Your task to perform on an android device: see tabs open on other devices in the chrome app Image 0: 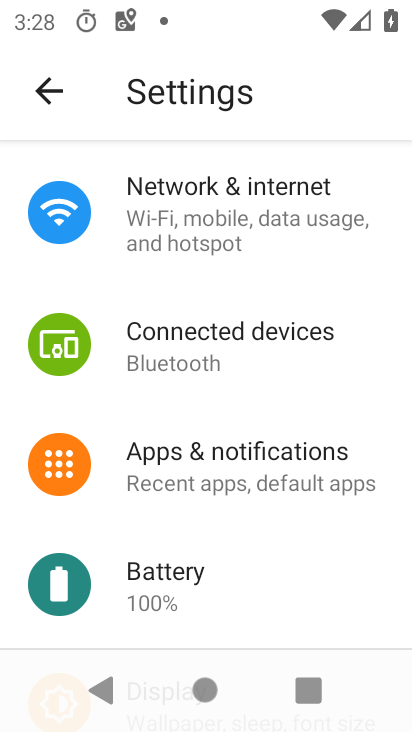
Step 0: press home button
Your task to perform on an android device: see tabs open on other devices in the chrome app Image 1: 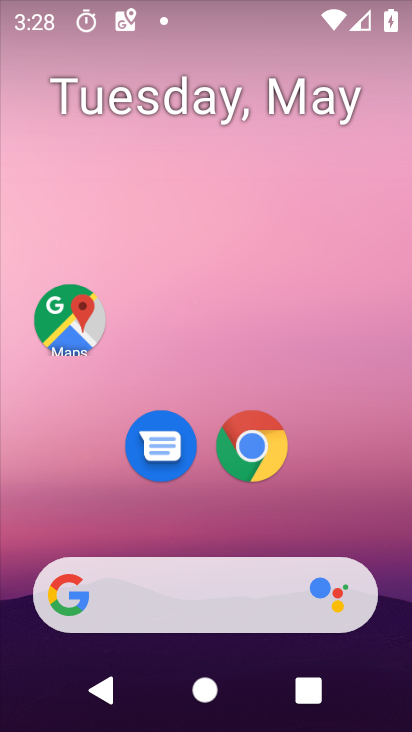
Step 1: click (252, 452)
Your task to perform on an android device: see tabs open on other devices in the chrome app Image 2: 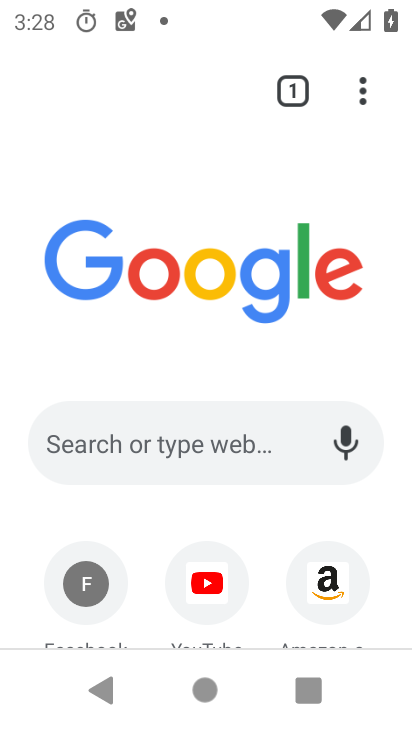
Step 2: click (364, 102)
Your task to perform on an android device: see tabs open on other devices in the chrome app Image 3: 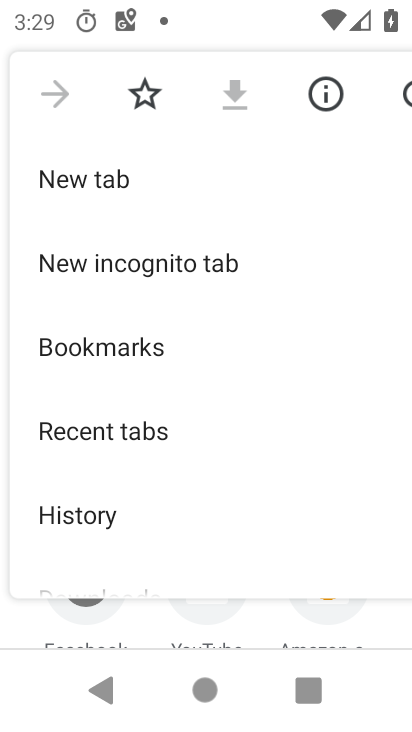
Step 3: click (109, 434)
Your task to perform on an android device: see tabs open on other devices in the chrome app Image 4: 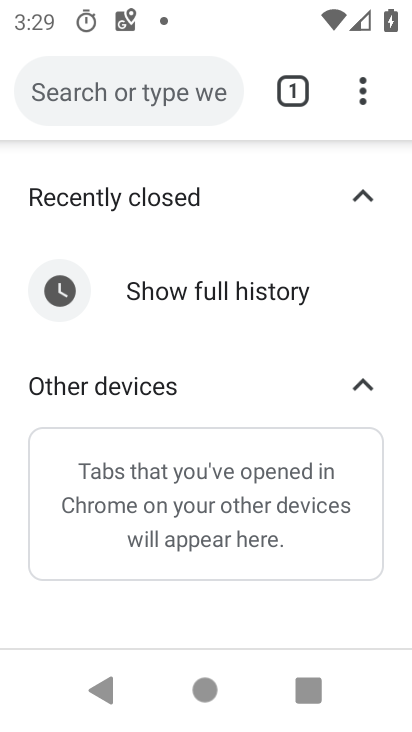
Step 4: task complete